Your task to perform on an android device: Toggle the flashlight Image 0: 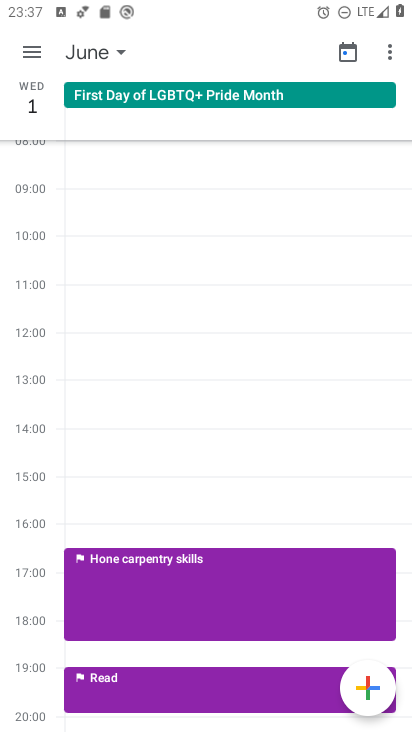
Step 0: press home button
Your task to perform on an android device: Toggle the flashlight Image 1: 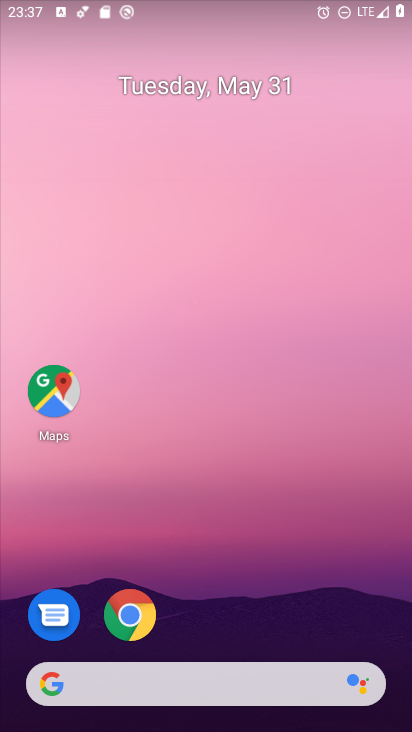
Step 1: drag from (232, 17) to (219, 548)
Your task to perform on an android device: Toggle the flashlight Image 2: 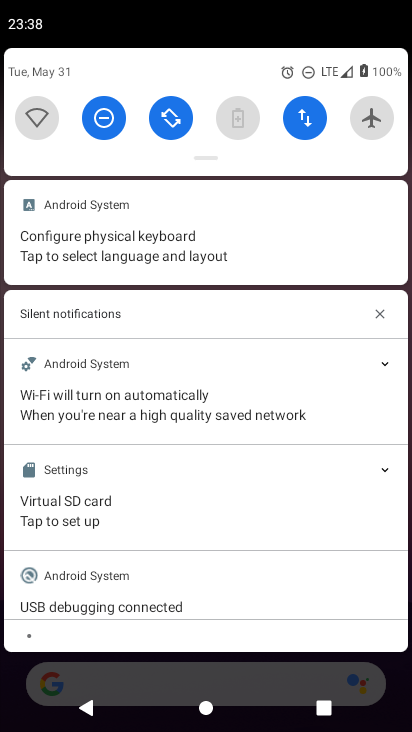
Step 2: drag from (209, 153) to (188, 581)
Your task to perform on an android device: Toggle the flashlight Image 3: 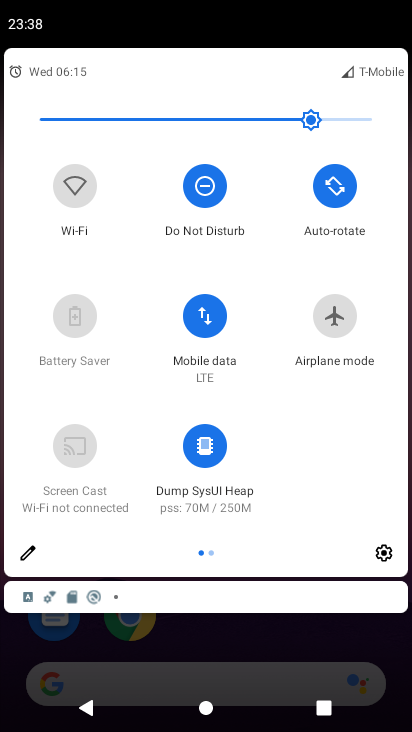
Step 3: click (24, 551)
Your task to perform on an android device: Toggle the flashlight Image 4: 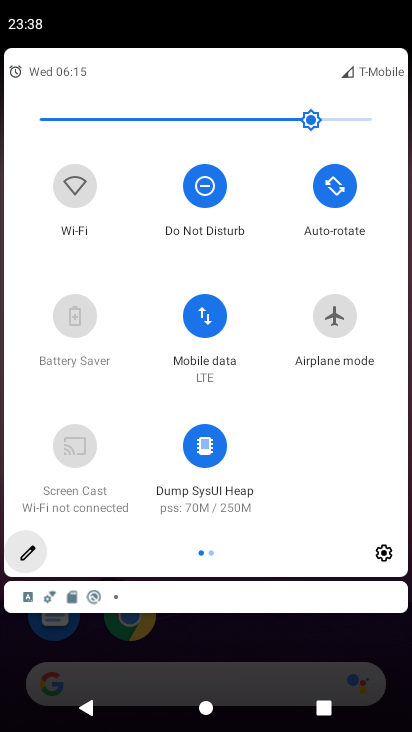
Step 4: click (24, 551)
Your task to perform on an android device: Toggle the flashlight Image 5: 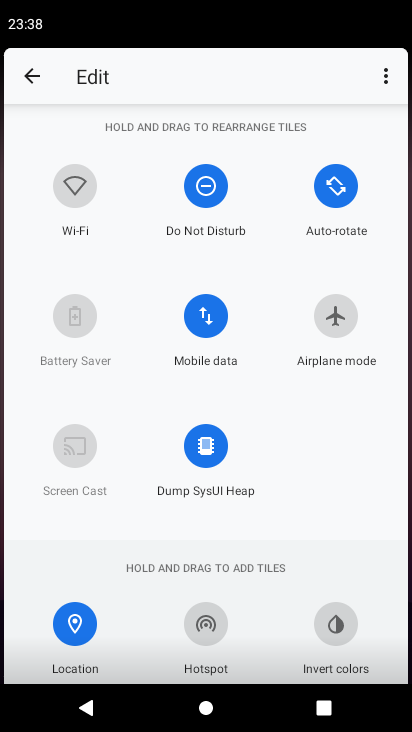
Step 5: task complete